Your task to perform on an android device: find photos in the google photos app Image 0: 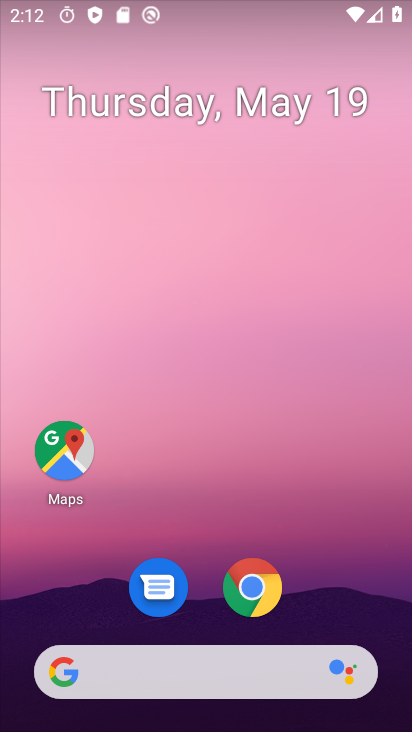
Step 0: drag from (220, 704) to (213, 253)
Your task to perform on an android device: find photos in the google photos app Image 1: 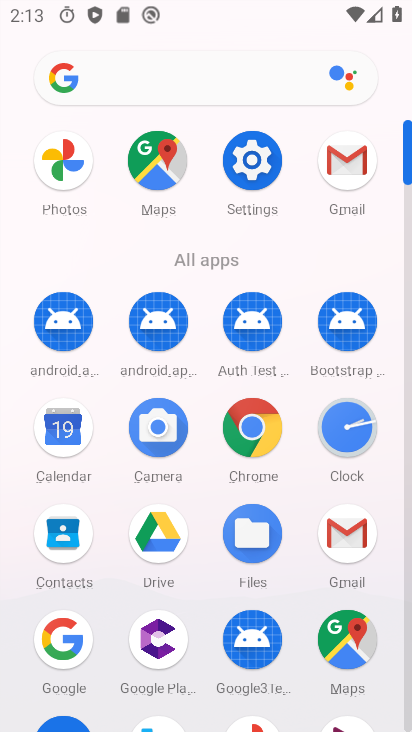
Step 1: click (65, 160)
Your task to perform on an android device: find photos in the google photos app Image 2: 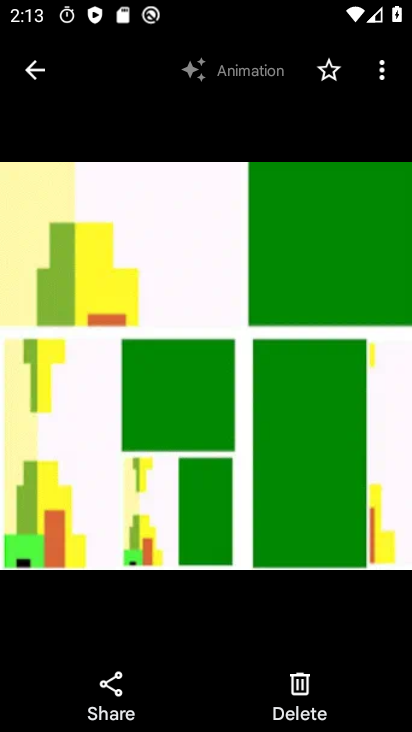
Step 2: task complete